Your task to perform on an android device: Do I have any events tomorrow? Image 0: 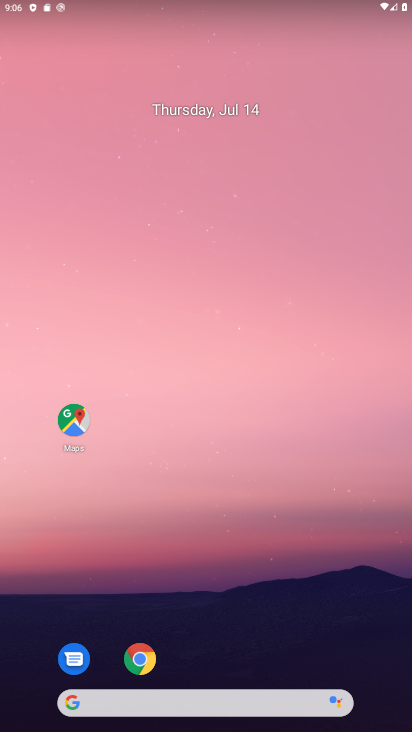
Step 0: drag from (228, 613) to (267, 138)
Your task to perform on an android device: Do I have any events tomorrow? Image 1: 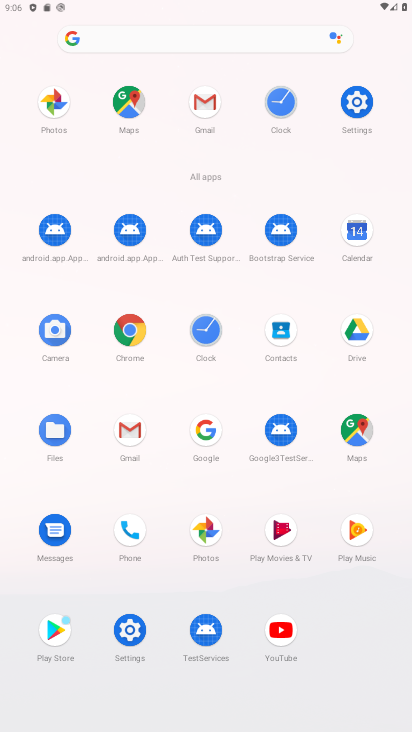
Step 1: click (362, 230)
Your task to perform on an android device: Do I have any events tomorrow? Image 2: 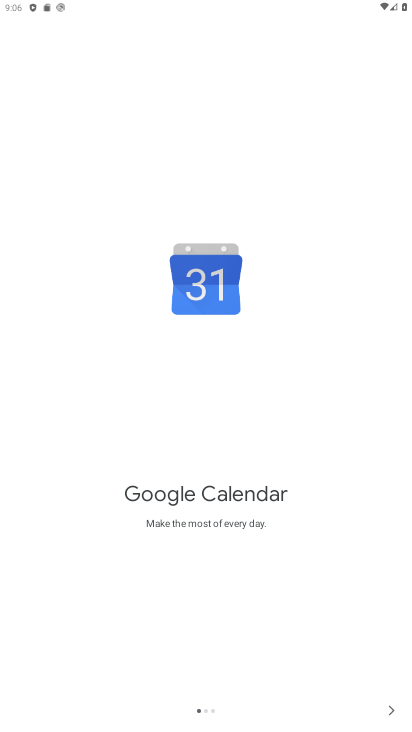
Step 2: click (397, 709)
Your task to perform on an android device: Do I have any events tomorrow? Image 3: 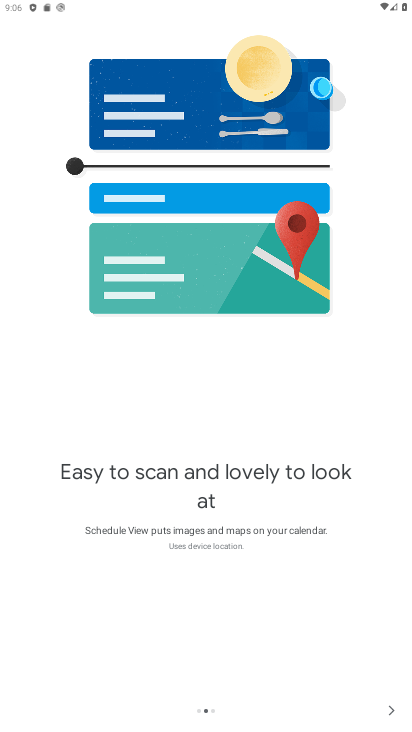
Step 3: click (363, 700)
Your task to perform on an android device: Do I have any events tomorrow? Image 4: 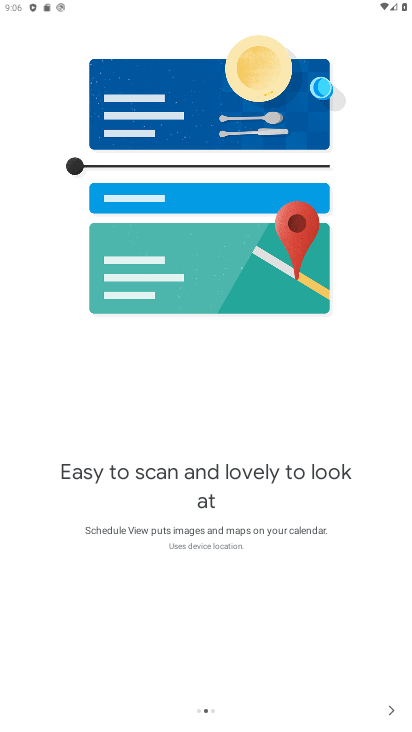
Step 4: click (405, 702)
Your task to perform on an android device: Do I have any events tomorrow? Image 5: 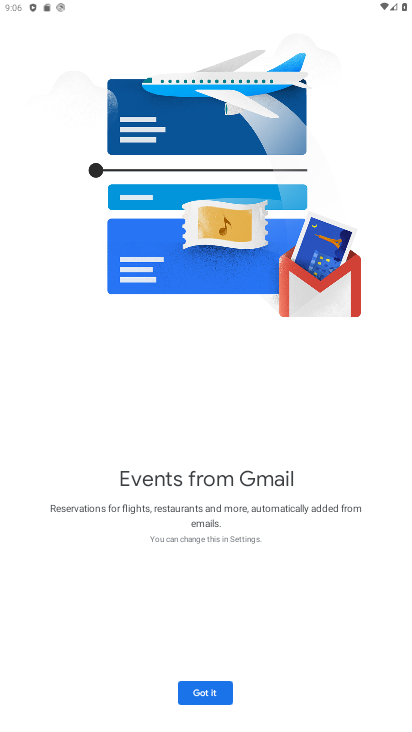
Step 5: click (185, 691)
Your task to perform on an android device: Do I have any events tomorrow? Image 6: 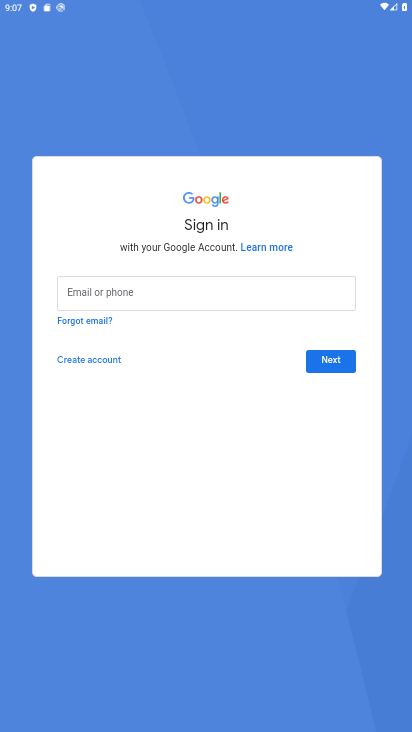
Step 6: task complete